Your task to perform on an android device: Open the stopwatch Image 0: 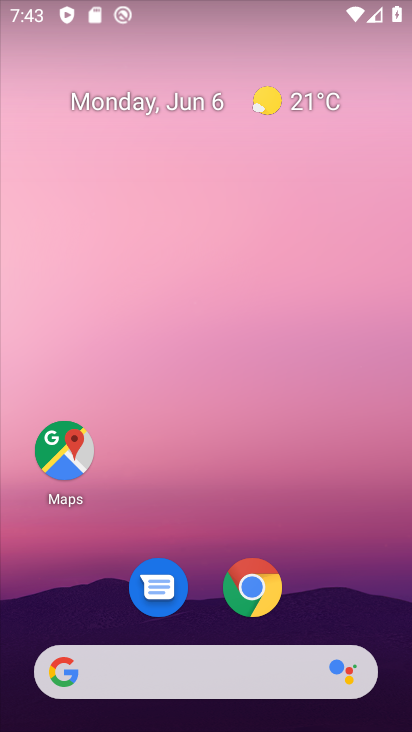
Step 0: drag from (235, 715) to (182, 0)
Your task to perform on an android device: Open the stopwatch Image 1: 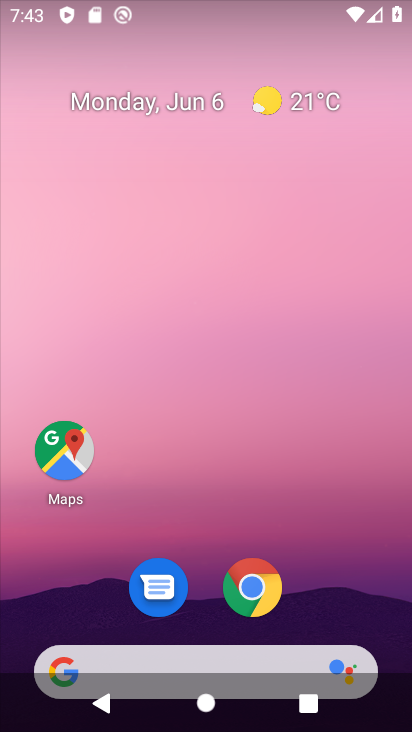
Step 1: drag from (238, 702) to (139, 16)
Your task to perform on an android device: Open the stopwatch Image 2: 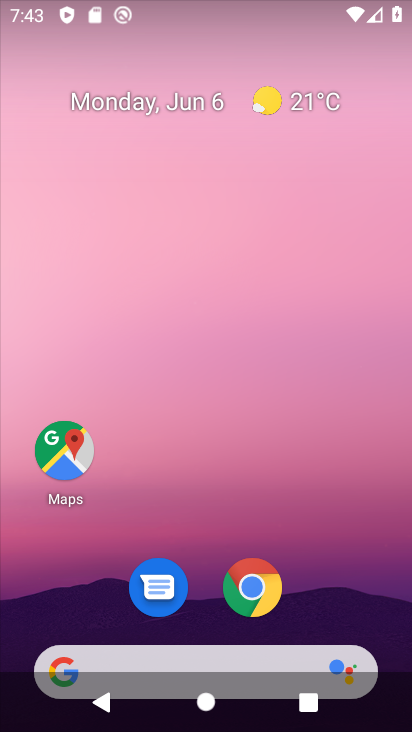
Step 2: drag from (274, 703) to (256, 58)
Your task to perform on an android device: Open the stopwatch Image 3: 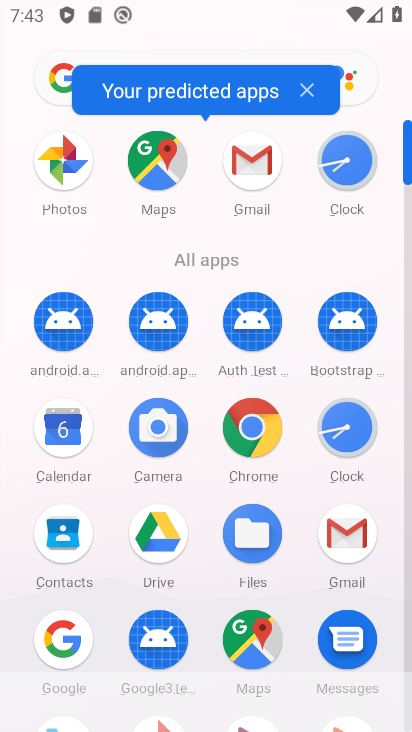
Step 3: click (345, 147)
Your task to perform on an android device: Open the stopwatch Image 4: 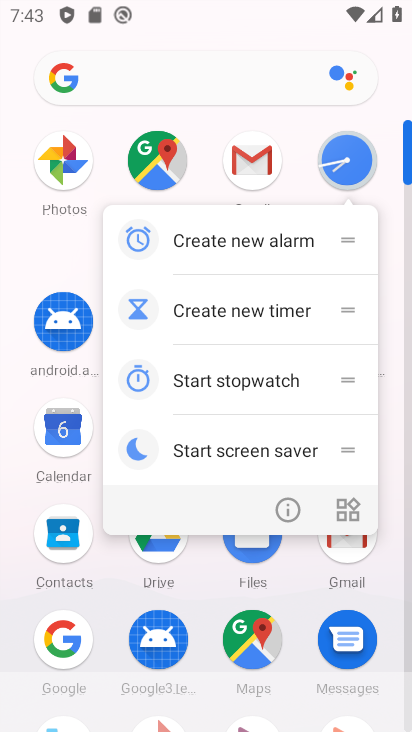
Step 4: click (336, 165)
Your task to perform on an android device: Open the stopwatch Image 5: 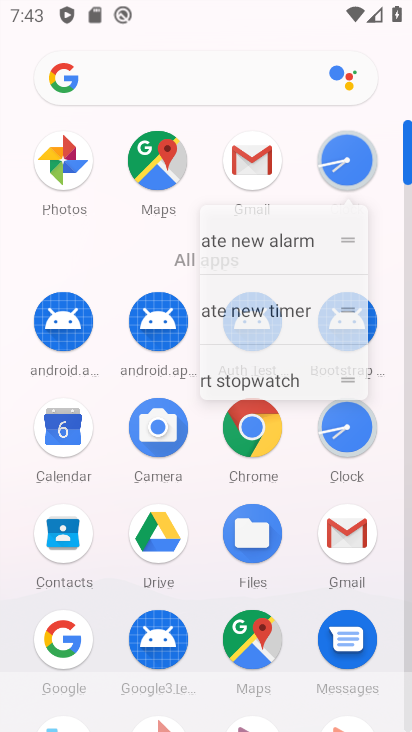
Step 5: click (336, 165)
Your task to perform on an android device: Open the stopwatch Image 6: 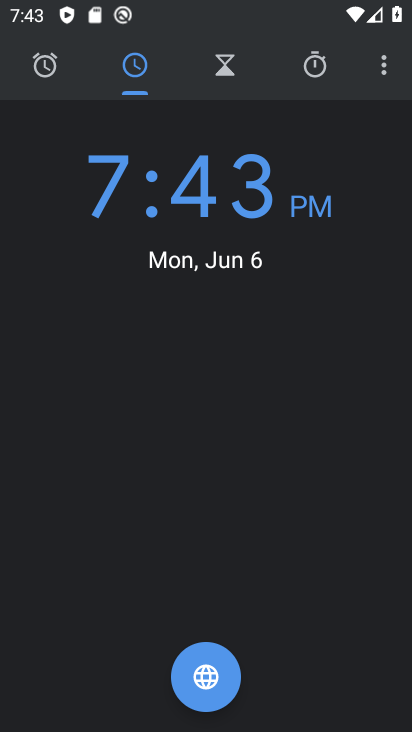
Step 6: click (300, 70)
Your task to perform on an android device: Open the stopwatch Image 7: 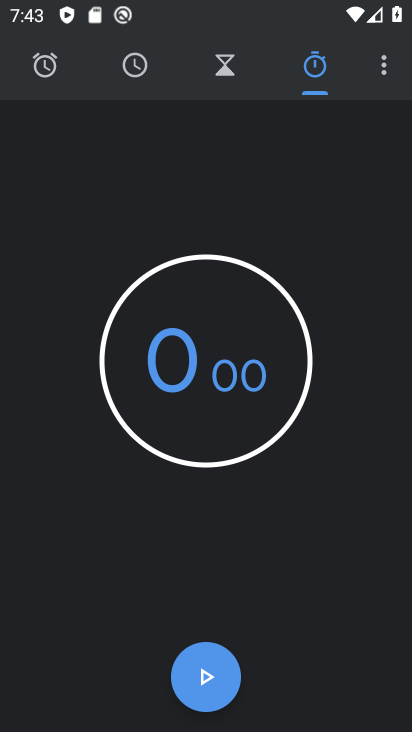
Step 7: task complete